Your task to perform on an android device: Open settings on Google Maps Image 0: 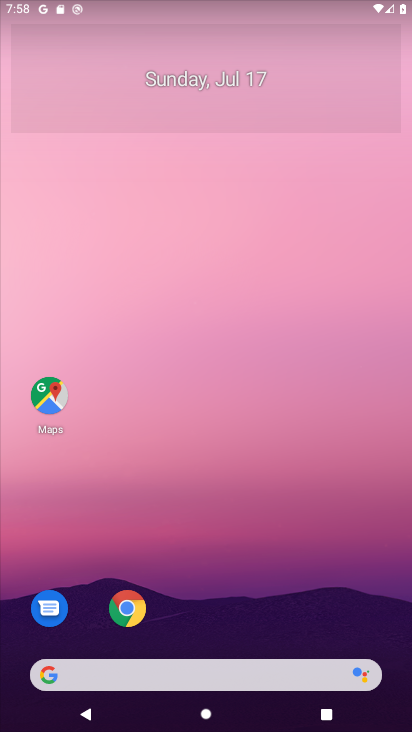
Step 0: drag from (243, 671) to (239, 432)
Your task to perform on an android device: Open settings on Google Maps Image 1: 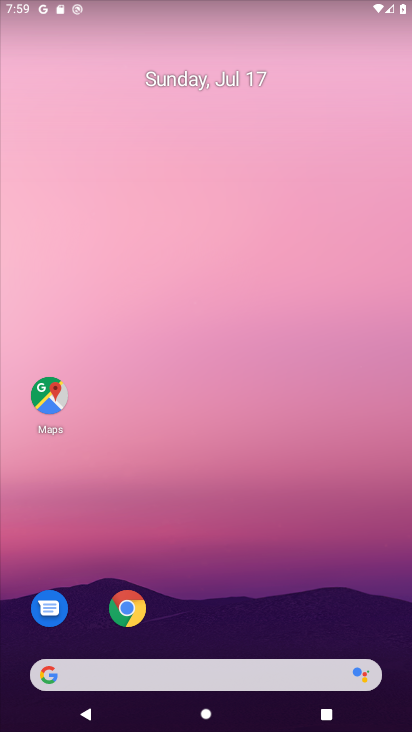
Step 1: click (37, 396)
Your task to perform on an android device: Open settings on Google Maps Image 2: 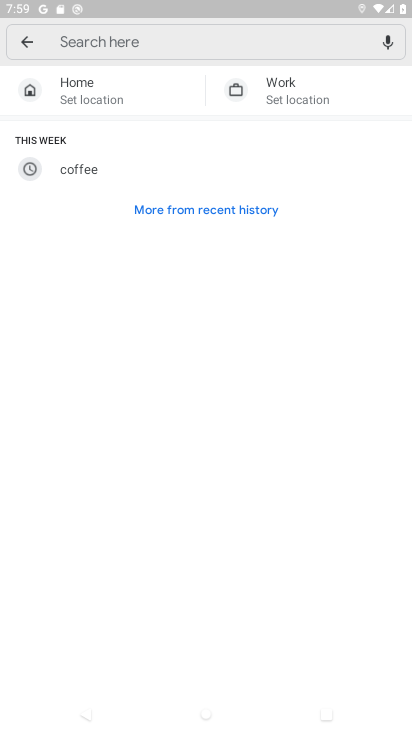
Step 2: click (22, 40)
Your task to perform on an android device: Open settings on Google Maps Image 3: 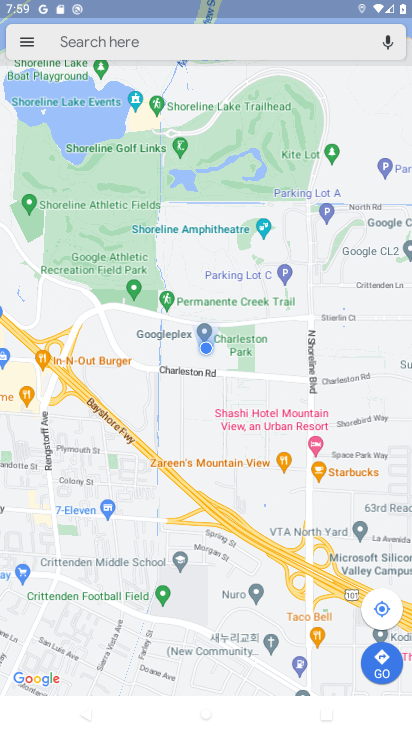
Step 3: click (22, 40)
Your task to perform on an android device: Open settings on Google Maps Image 4: 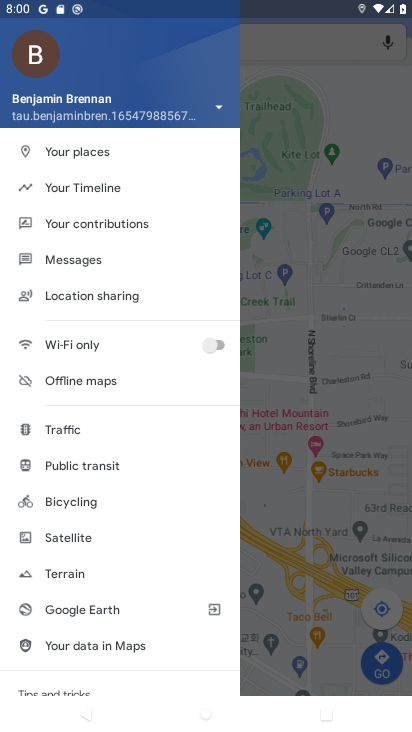
Step 4: drag from (132, 650) to (158, 254)
Your task to perform on an android device: Open settings on Google Maps Image 5: 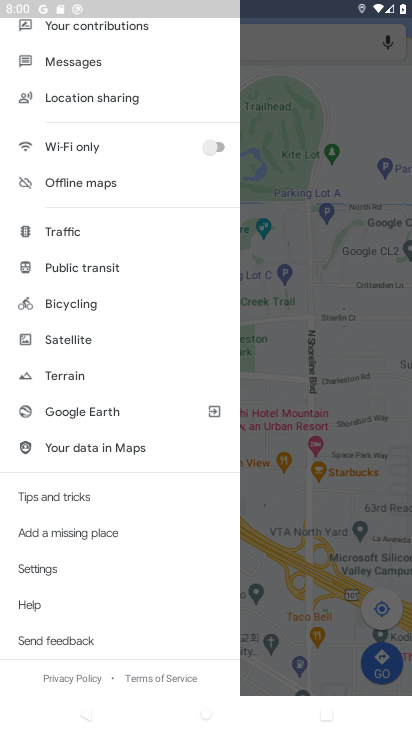
Step 5: drag from (100, 675) to (174, 312)
Your task to perform on an android device: Open settings on Google Maps Image 6: 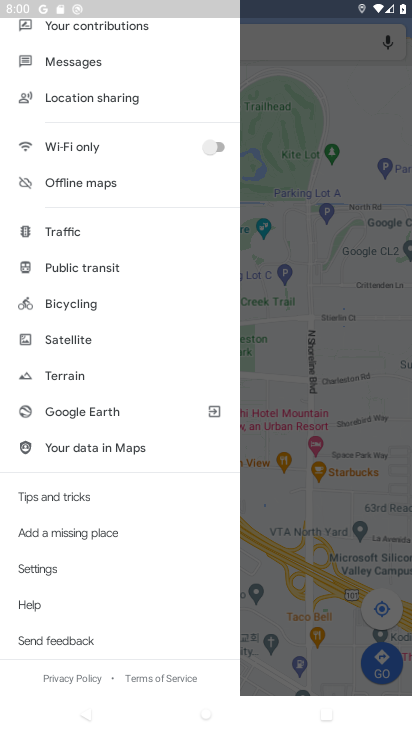
Step 6: click (58, 574)
Your task to perform on an android device: Open settings on Google Maps Image 7: 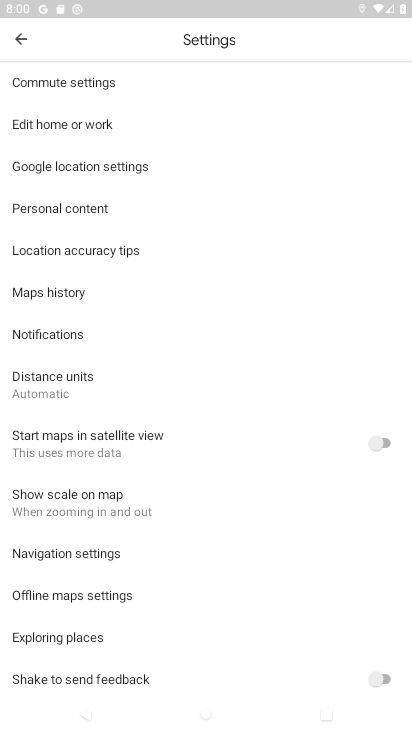
Step 7: task complete